Your task to perform on an android device: delete a single message in the gmail app Image 0: 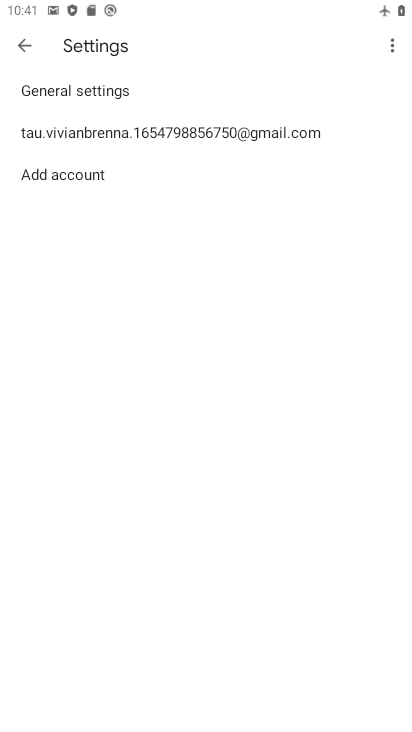
Step 0: click (21, 46)
Your task to perform on an android device: delete a single message in the gmail app Image 1: 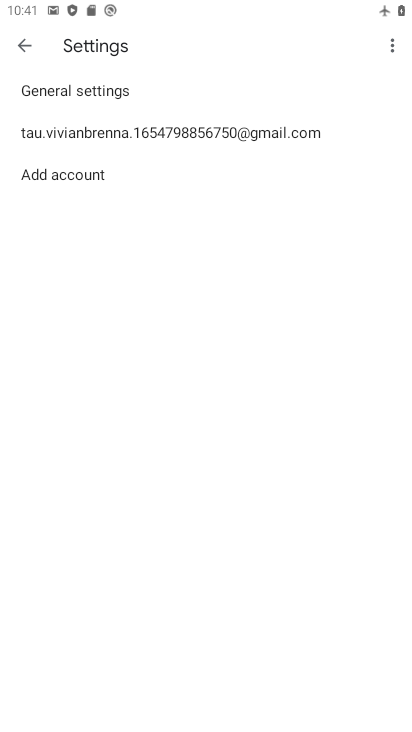
Step 1: click (21, 46)
Your task to perform on an android device: delete a single message in the gmail app Image 2: 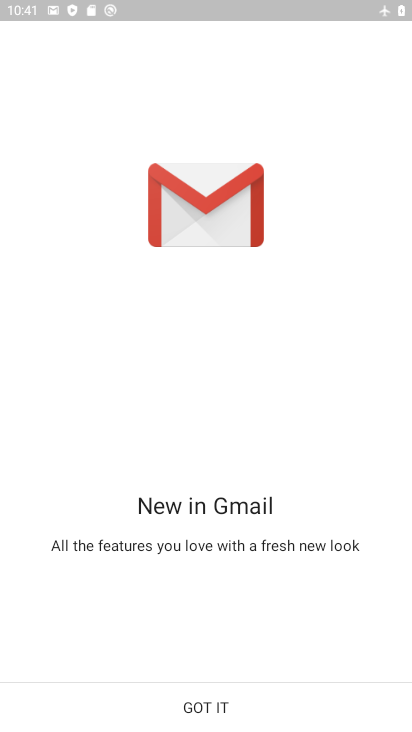
Step 2: click (206, 705)
Your task to perform on an android device: delete a single message in the gmail app Image 3: 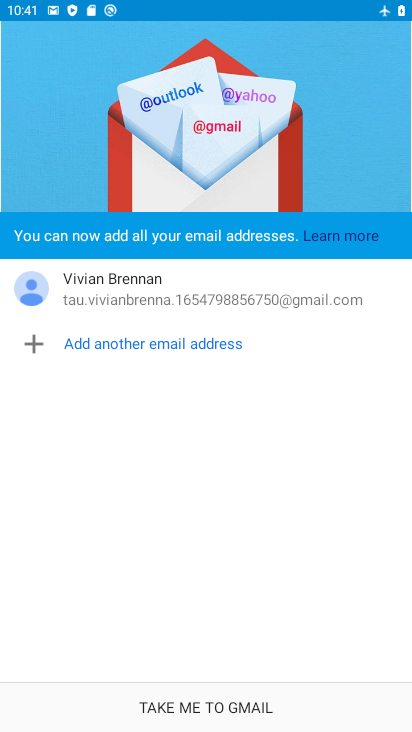
Step 3: click (209, 706)
Your task to perform on an android device: delete a single message in the gmail app Image 4: 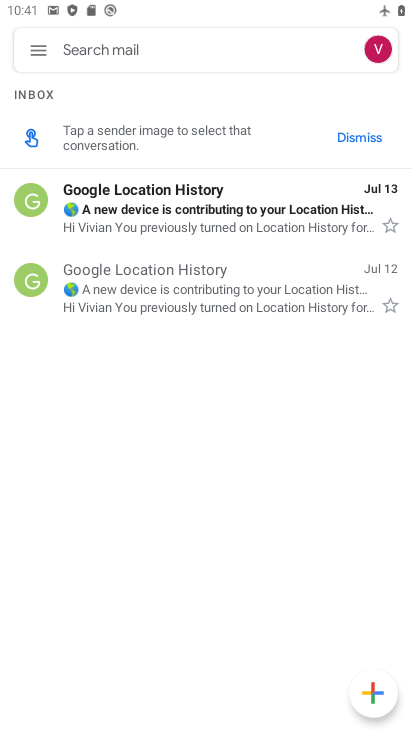
Step 4: click (170, 217)
Your task to perform on an android device: delete a single message in the gmail app Image 5: 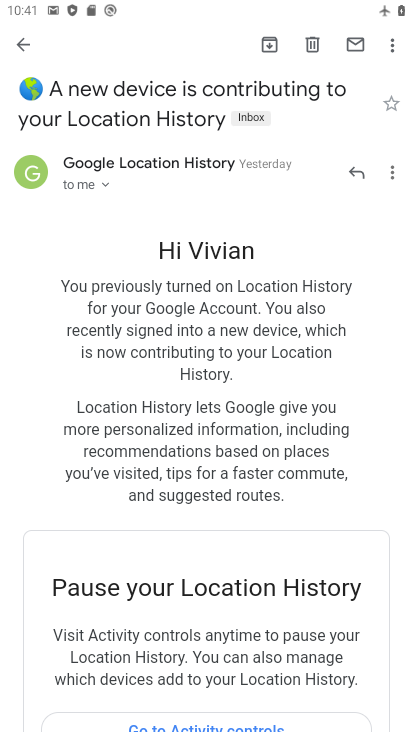
Step 5: click (304, 41)
Your task to perform on an android device: delete a single message in the gmail app Image 6: 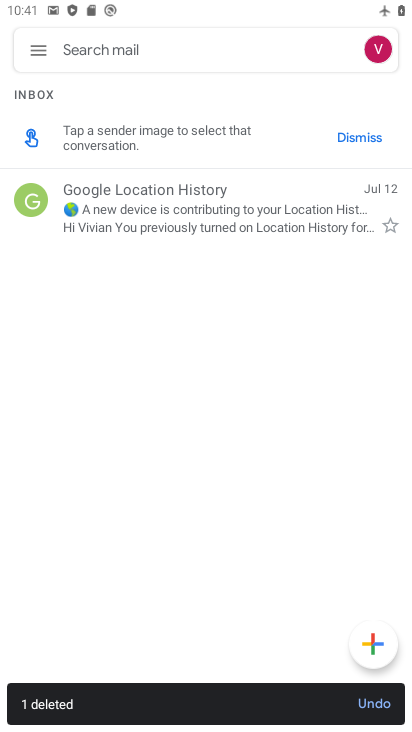
Step 6: task complete